Your task to perform on an android device: Is it going to rain tomorrow? Image 0: 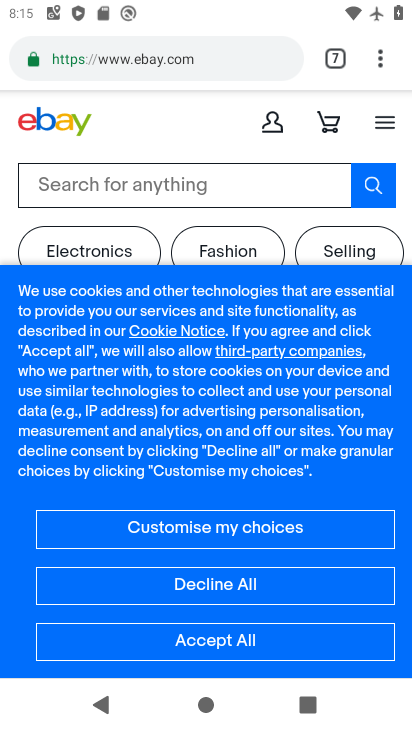
Step 0: press home button
Your task to perform on an android device: Is it going to rain tomorrow? Image 1: 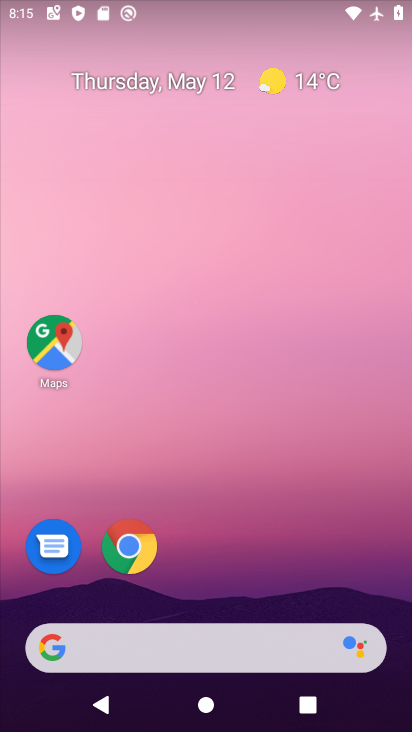
Step 1: click (319, 76)
Your task to perform on an android device: Is it going to rain tomorrow? Image 2: 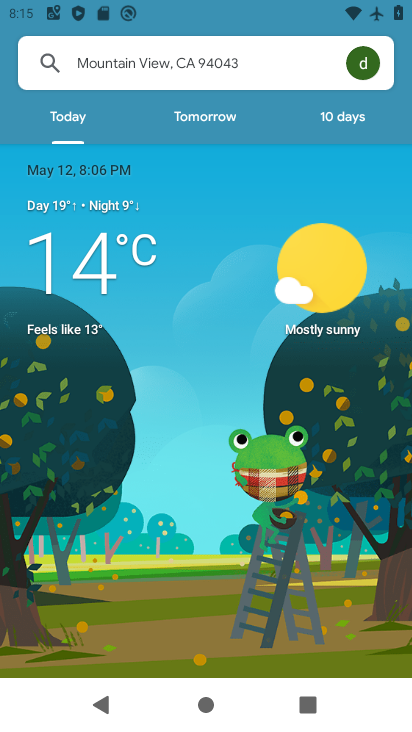
Step 2: click (224, 121)
Your task to perform on an android device: Is it going to rain tomorrow? Image 3: 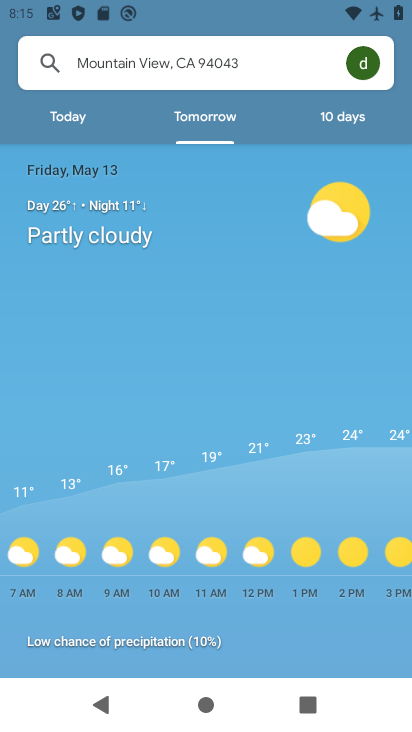
Step 3: task complete